Your task to perform on an android device: Open the downloads Image 0: 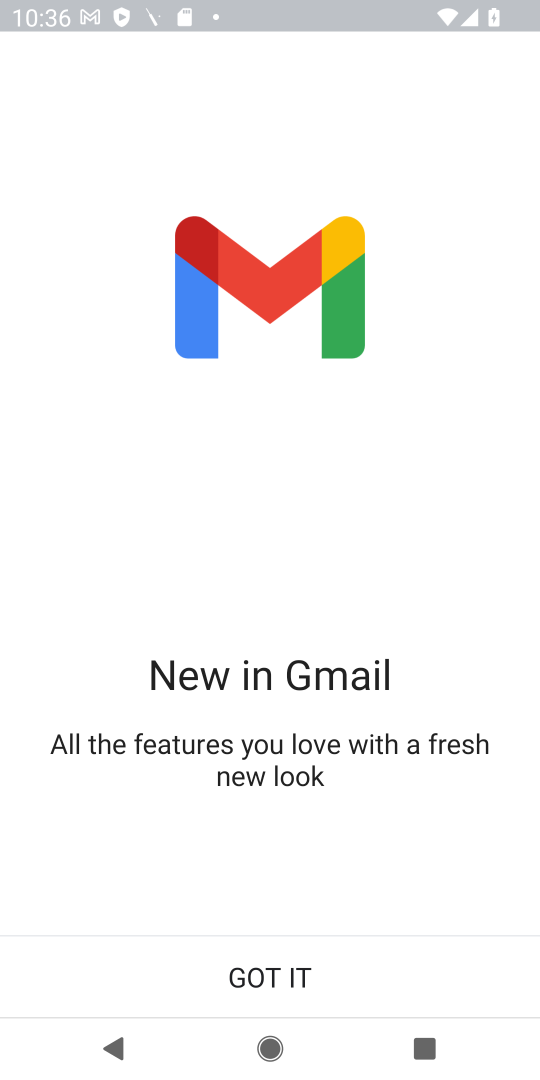
Step 0: press home button
Your task to perform on an android device: Open the downloads Image 1: 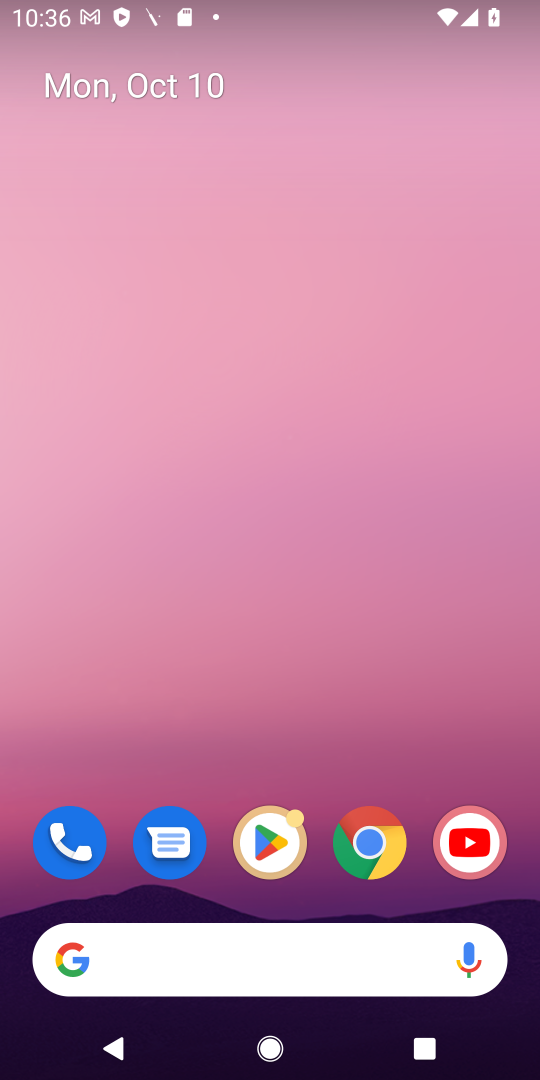
Step 1: drag from (326, 803) to (284, 96)
Your task to perform on an android device: Open the downloads Image 2: 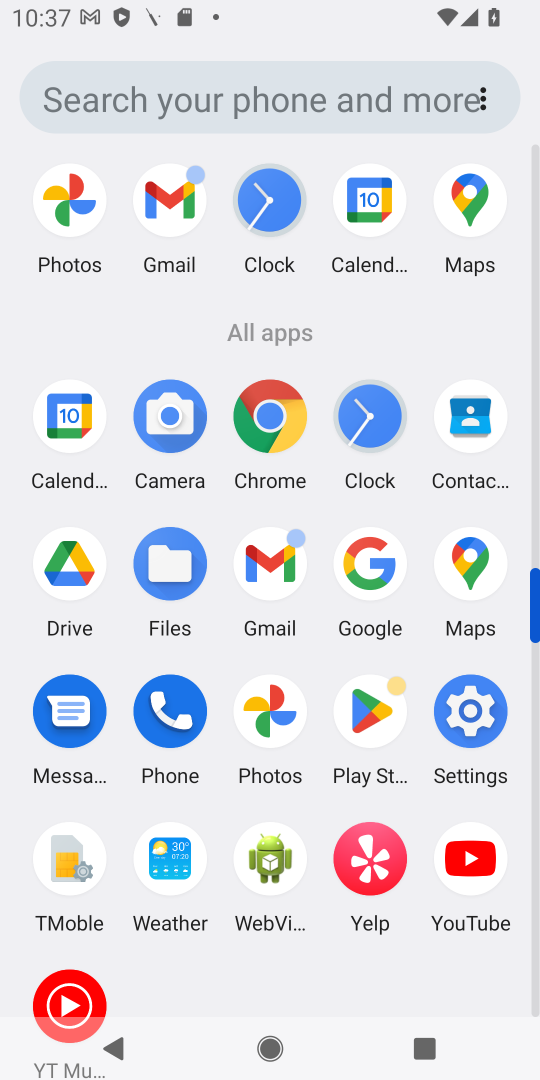
Step 2: click (158, 582)
Your task to perform on an android device: Open the downloads Image 3: 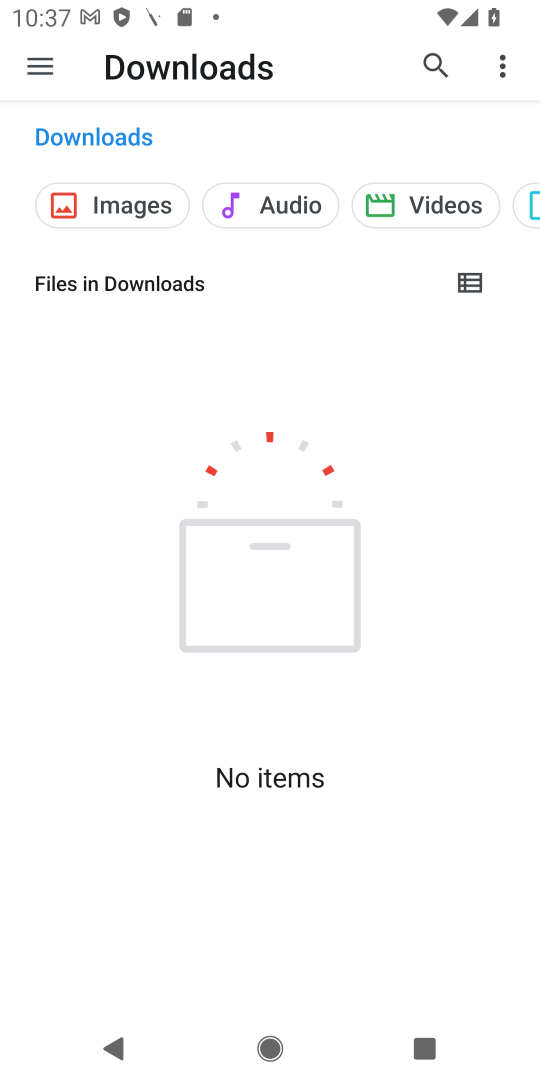
Step 3: task complete